Your task to perform on an android device: Is it going to rain this weekend? Image 0: 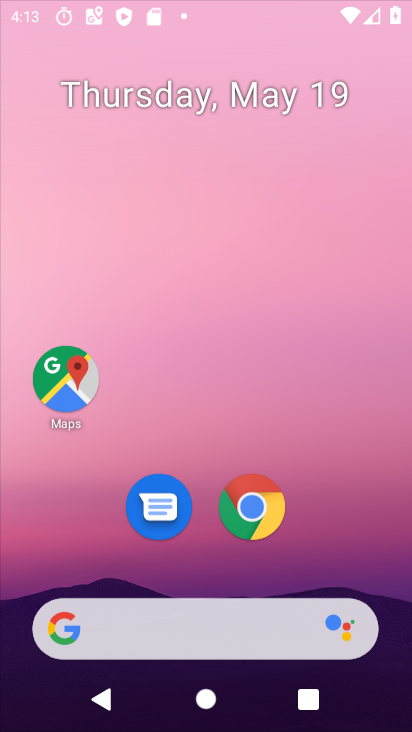
Step 0: click (352, 355)
Your task to perform on an android device: Is it going to rain this weekend? Image 1: 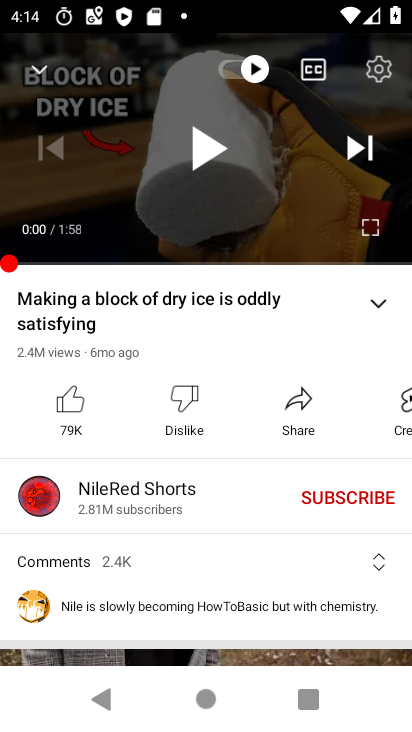
Step 1: press home button
Your task to perform on an android device: Is it going to rain this weekend? Image 2: 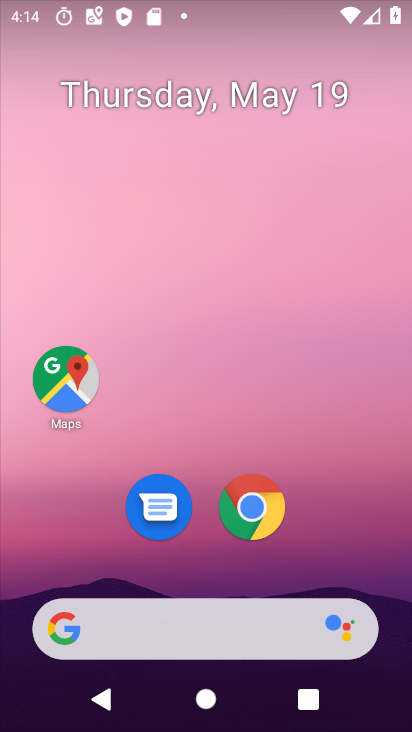
Step 2: drag from (392, 680) to (328, 290)
Your task to perform on an android device: Is it going to rain this weekend? Image 3: 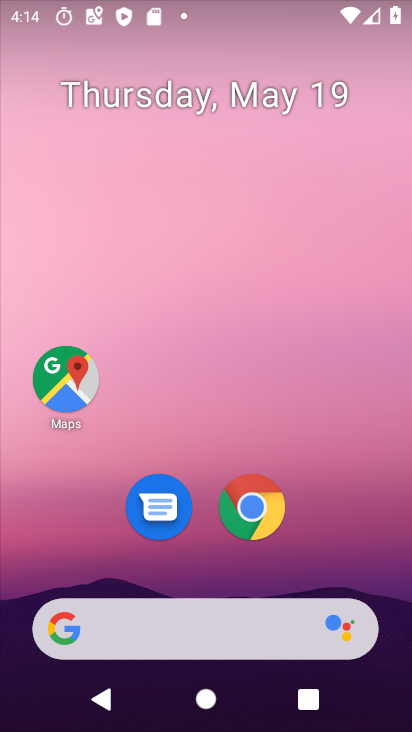
Step 3: drag from (389, 648) to (317, 269)
Your task to perform on an android device: Is it going to rain this weekend? Image 4: 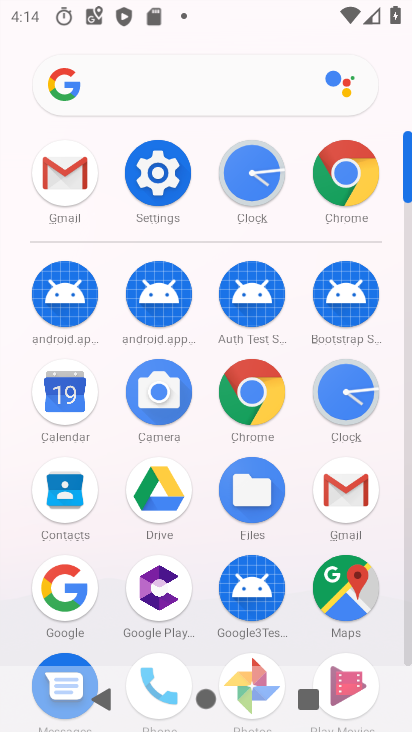
Step 4: click (76, 587)
Your task to perform on an android device: Is it going to rain this weekend? Image 5: 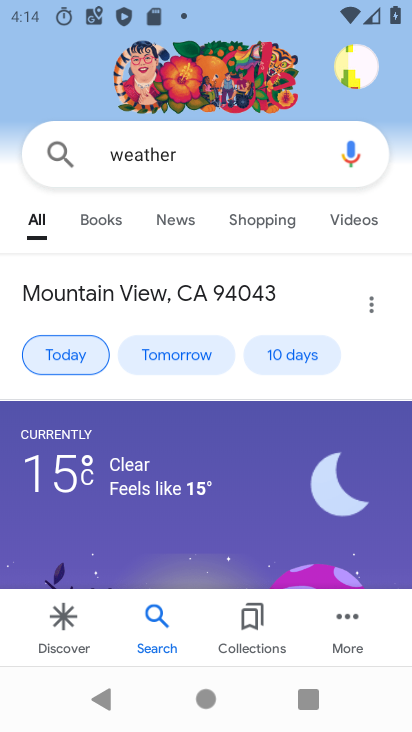
Step 5: click (288, 344)
Your task to perform on an android device: Is it going to rain this weekend? Image 6: 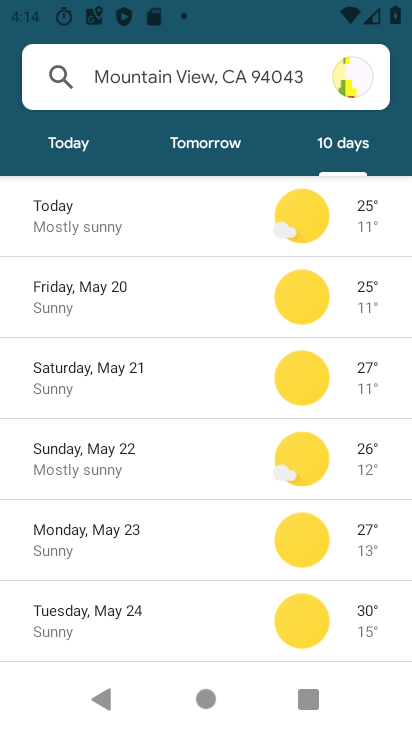
Step 6: task complete